Your task to perform on an android device: turn off improve location accuracy Image 0: 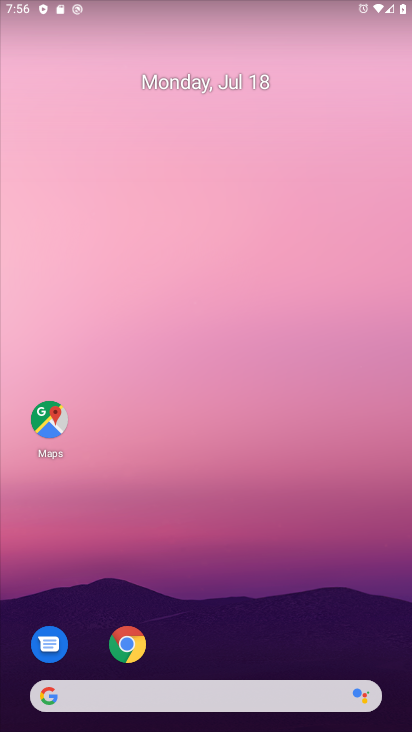
Step 0: press home button
Your task to perform on an android device: turn off improve location accuracy Image 1: 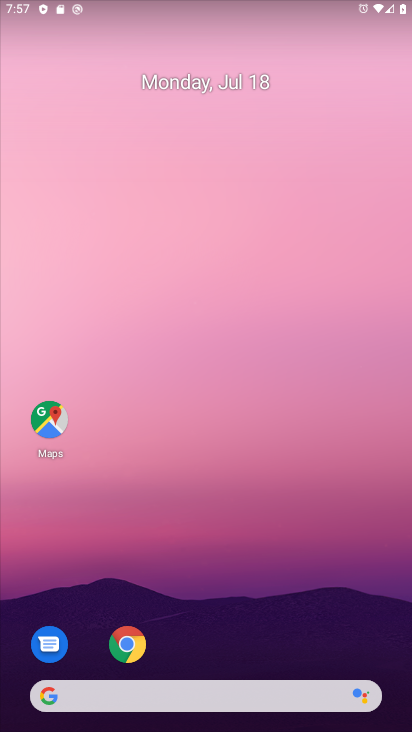
Step 1: drag from (226, 662) to (286, 50)
Your task to perform on an android device: turn off improve location accuracy Image 2: 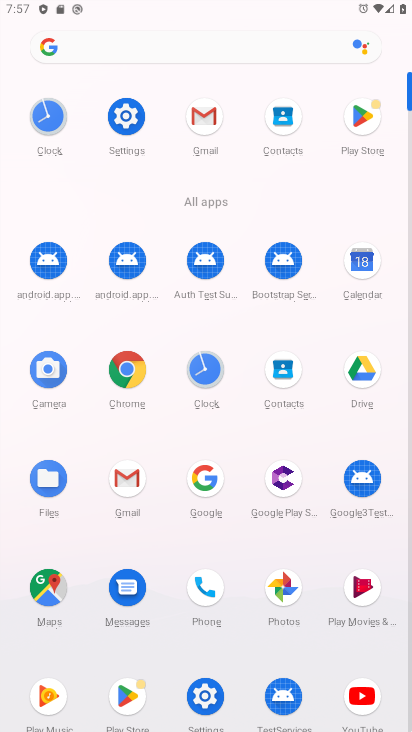
Step 2: click (129, 113)
Your task to perform on an android device: turn off improve location accuracy Image 3: 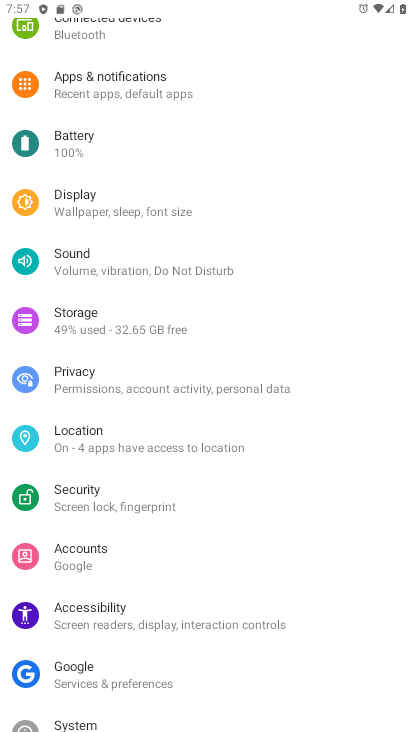
Step 3: click (103, 436)
Your task to perform on an android device: turn off improve location accuracy Image 4: 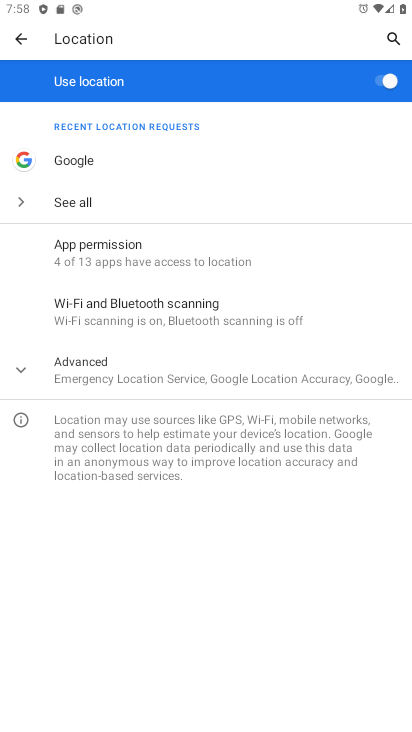
Step 4: click (23, 371)
Your task to perform on an android device: turn off improve location accuracy Image 5: 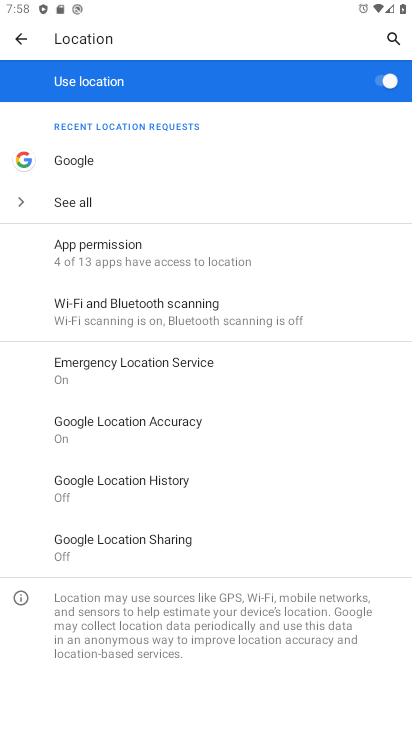
Step 5: click (125, 433)
Your task to perform on an android device: turn off improve location accuracy Image 6: 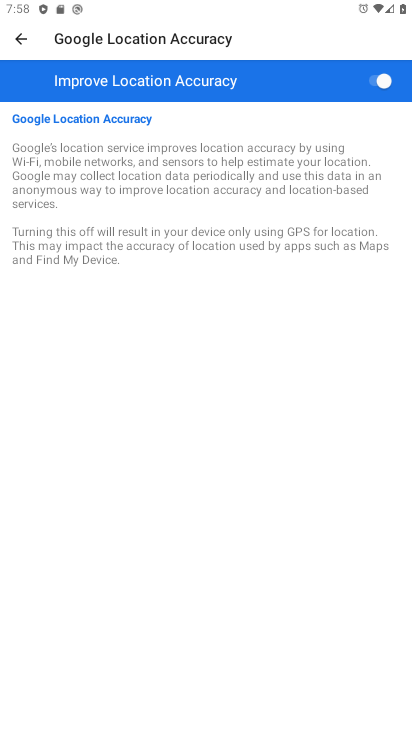
Step 6: click (376, 88)
Your task to perform on an android device: turn off improve location accuracy Image 7: 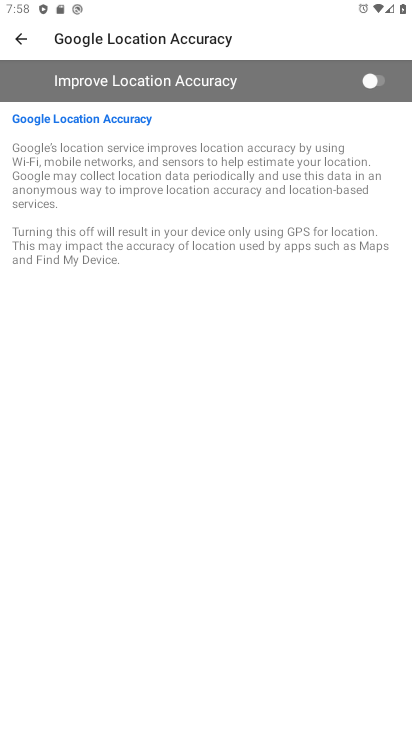
Step 7: task complete